Your task to perform on an android device: clear all cookies in the chrome app Image 0: 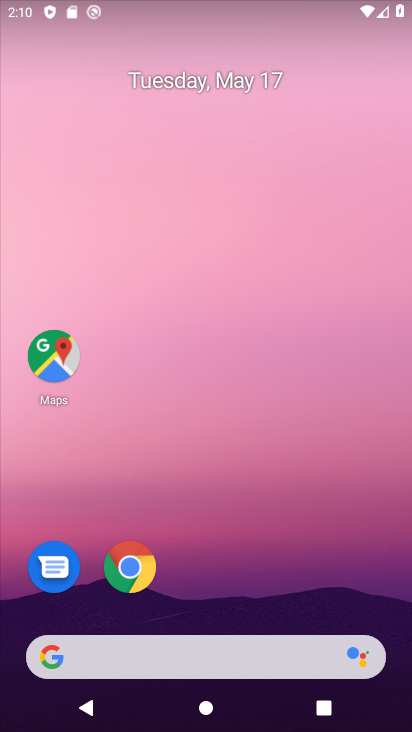
Step 0: drag from (167, 629) to (128, 1)
Your task to perform on an android device: clear all cookies in the chrome app Image 1: 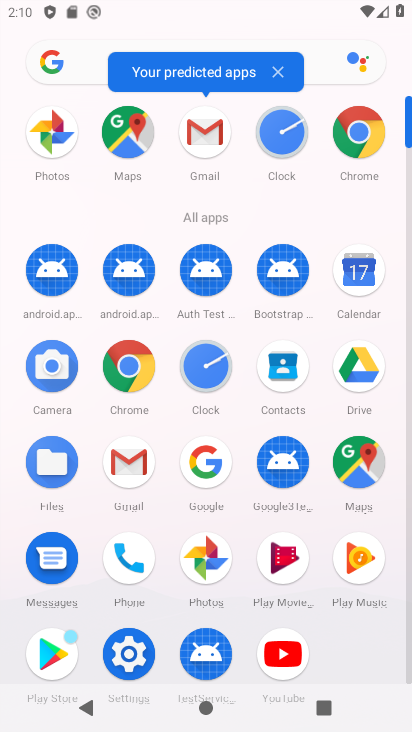
Step 1: click (355, 152)
Your task to perform on an android device: clear all cookies in the chrome app Image 2: 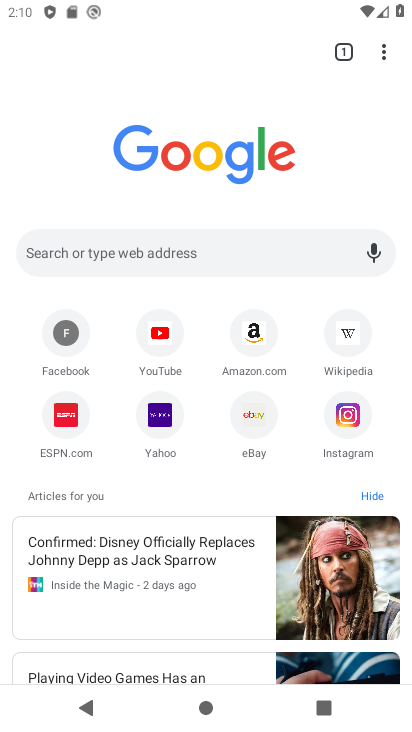
Step 2: click (385, 56)
Your task to perform on an android device: clear all cookies in the chrome app Image 3: 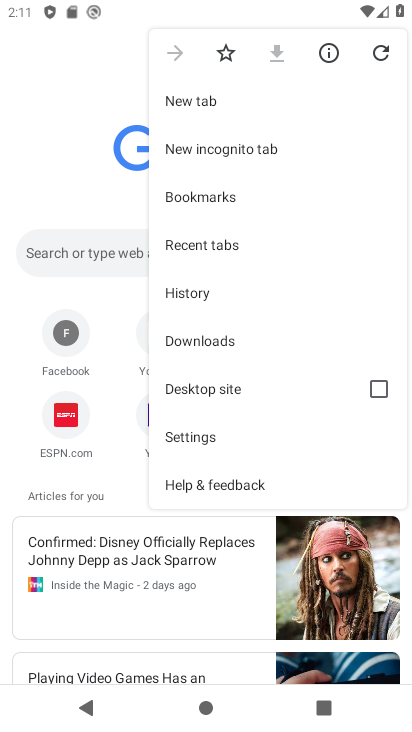
Step 3: click (187, 293)
Your task to perform on an android device: clear all cookies in the chrome app Image 4: 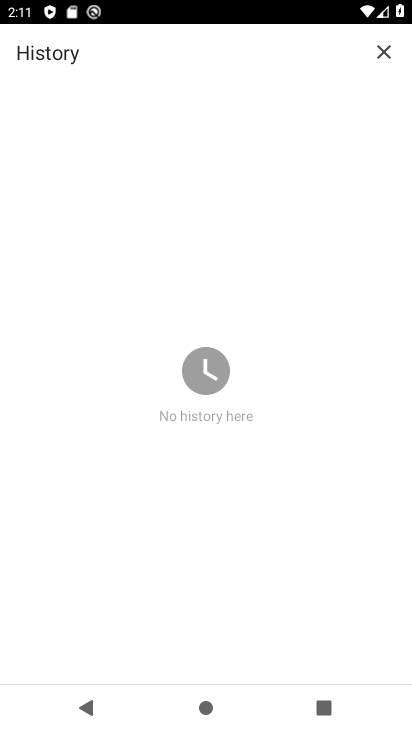
Step 4: task complete